Your task to perform on an android device: Open the Play Movies app and select the watchlist tab. Image 0: 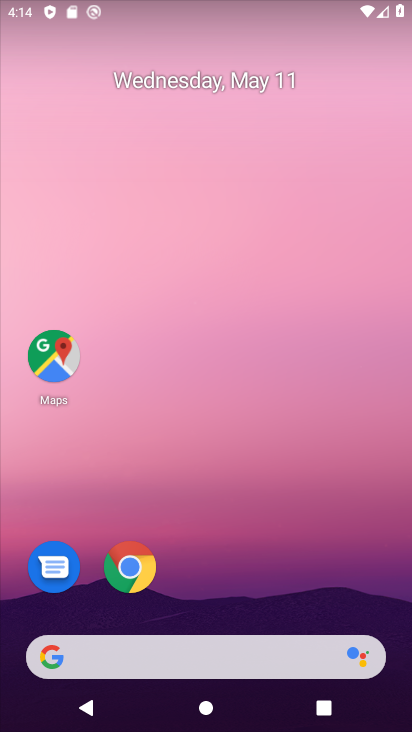
Step 0: drag from (221, 600) to (254, 313)
Your task to perform on an android device: Open the Play Movies app and select the watchlist tab. Image 1: 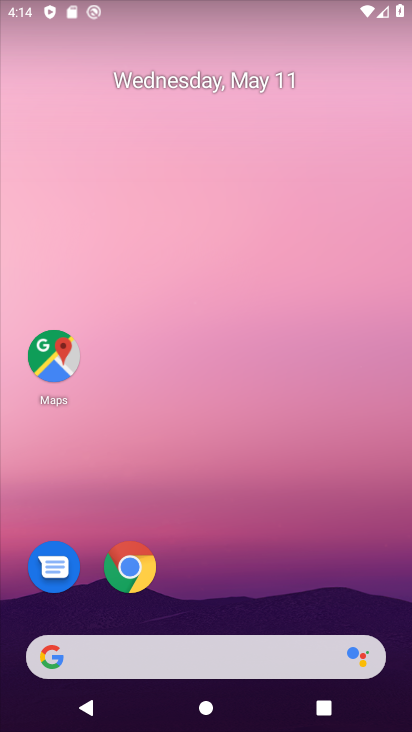
Step 1: drag from (205, 598) to (262, 1)
Your task to perform on an android device: Open the Play Movies app and select the watchlist tab. Image 2: 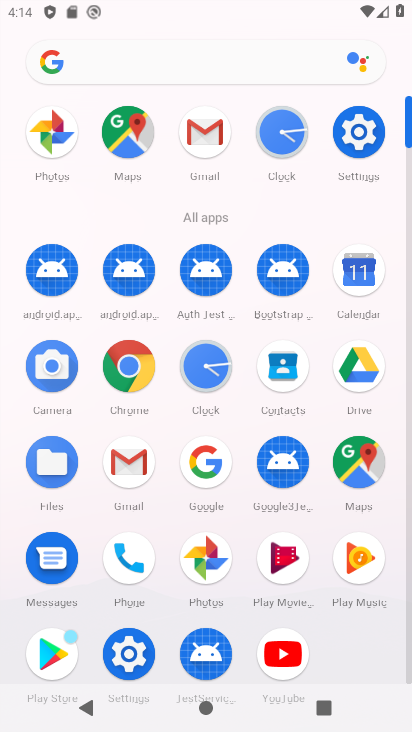
Step 2: click (281, 547)
Your task to perform on an android device: Open the Play Movies app and select the watchlist tab. Image 3: 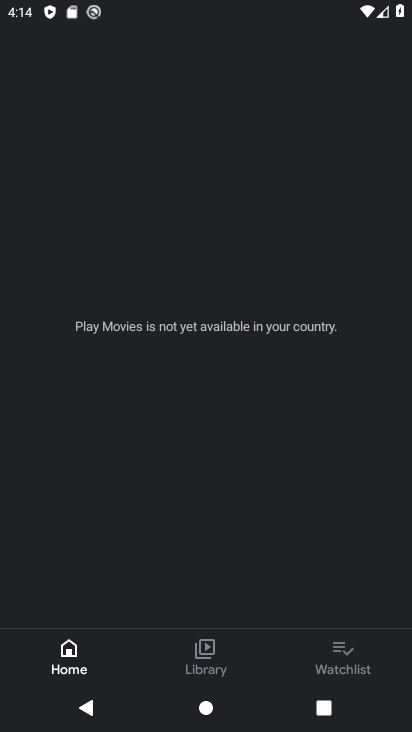
Step 3: click (333, 651)
Your task to perform on an android device: Open the Play Movies app and select the watchlist tab. Image 4: 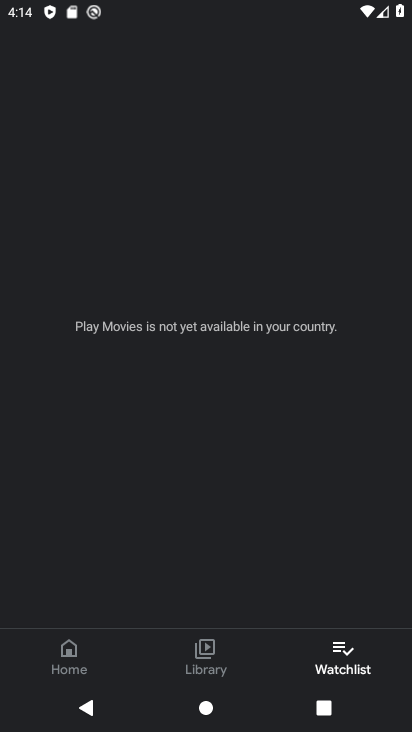
Step 4: task complete